Your task to perform on an android device: Open the calendar app, open the side menu, and click the "Day" option Image 0: 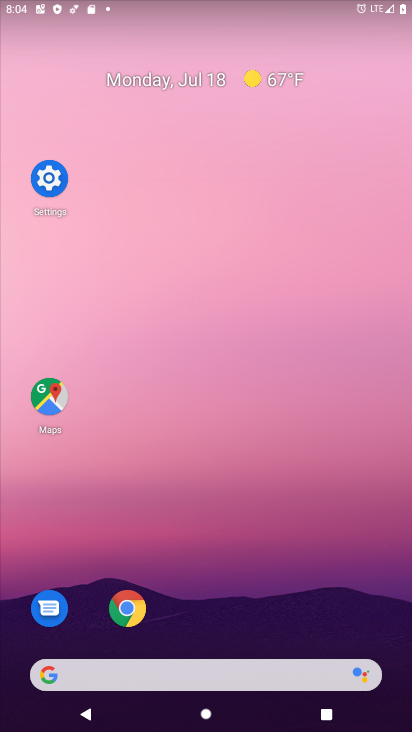
Step 0: click (127, 596)
Your task to perform on an android device: Open the calendar app, open the side menu, and click the "Day" option Image 1: 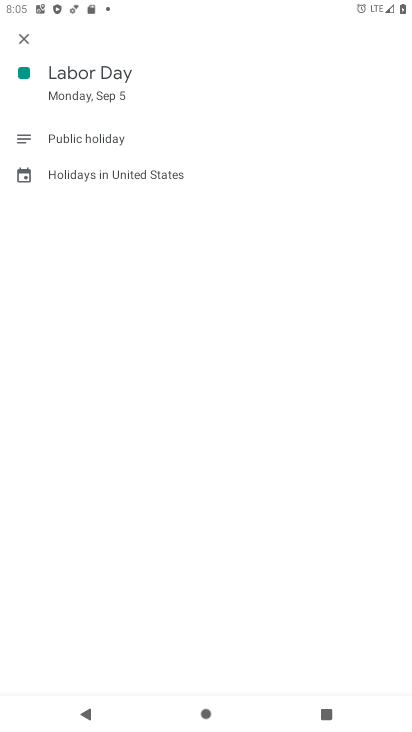
Step 1: click (19, 45)
Your task to perform on an android device: Open the calendar app, open the side menu, and click the "Day" option Image 2: 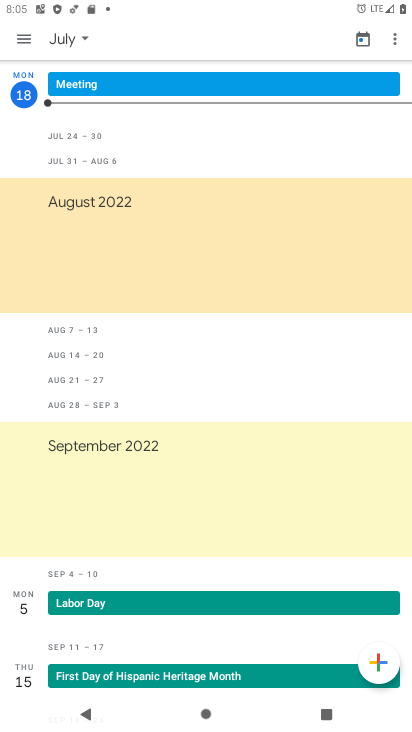
Step 2: click (29, 53)
Your task to perform on an android device: Open the calendar app, open the side menu, and click the "Day" option Image 3: 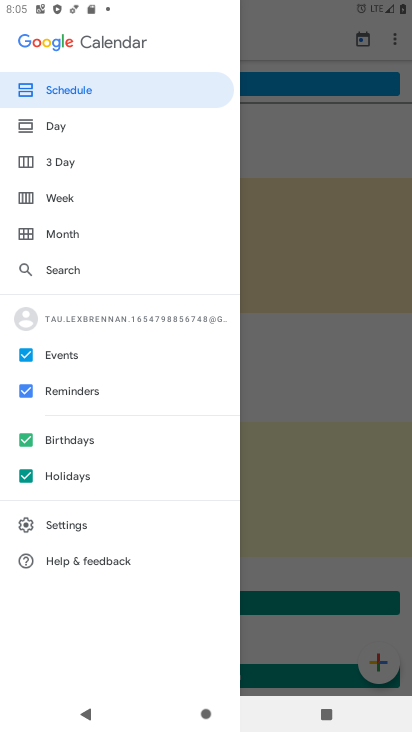
Step 3: click (102, 120)
Your task to perform on an android device: Open the calendar app, open the side menu, and click the "Day" option Image 4: 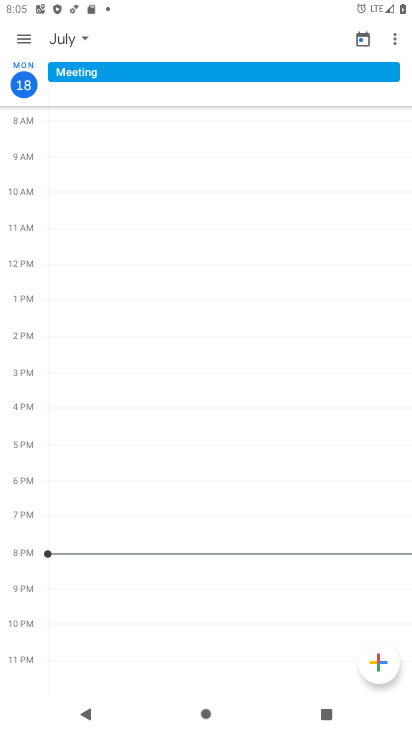
Step 4: task complete